Your task to perform on an android device: Open Google Maps Image 0: 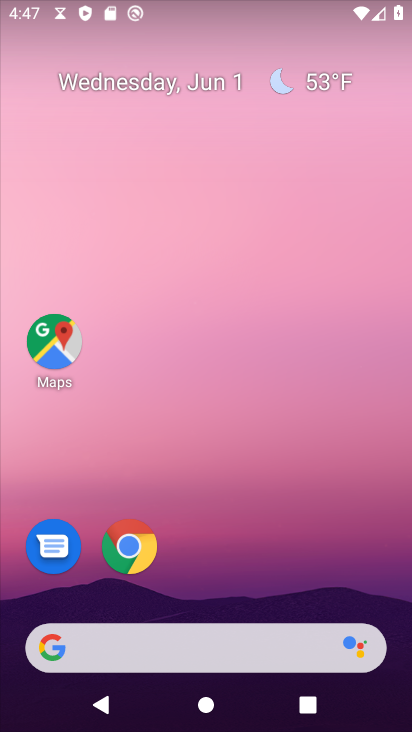
Step 0: drag from (267, 395) to (198, 27)
Your task to perform on an android device: Open Google Maps Image 1: 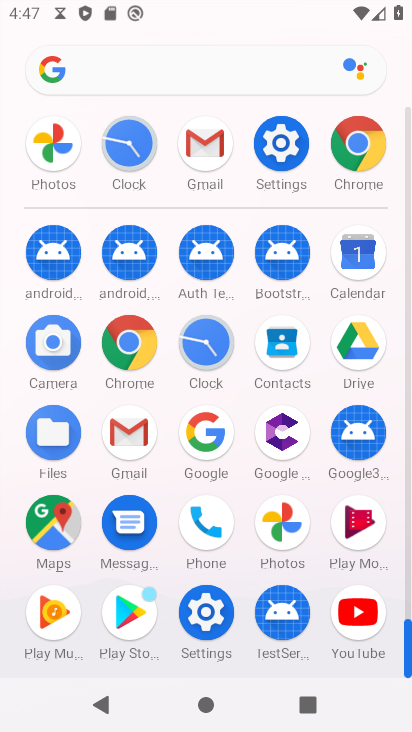
Step 1: drag from (8, 533) to (11, 214)
Your task to perform on an android device: Open Google Maps Image 2: 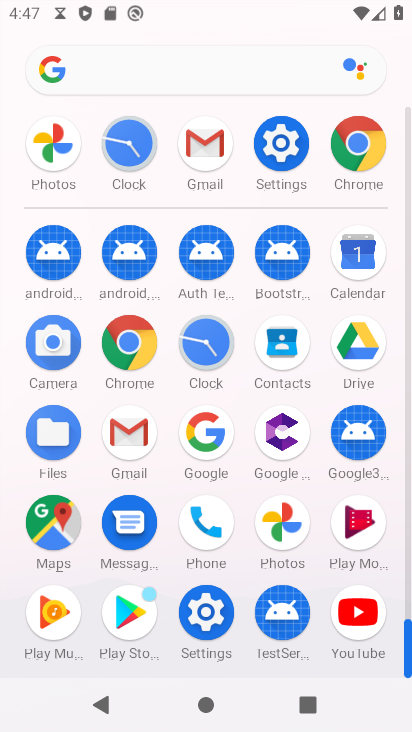
Step 2: click (48, 522)
Your task to perform on an android device: Open Google Maps Image 3: 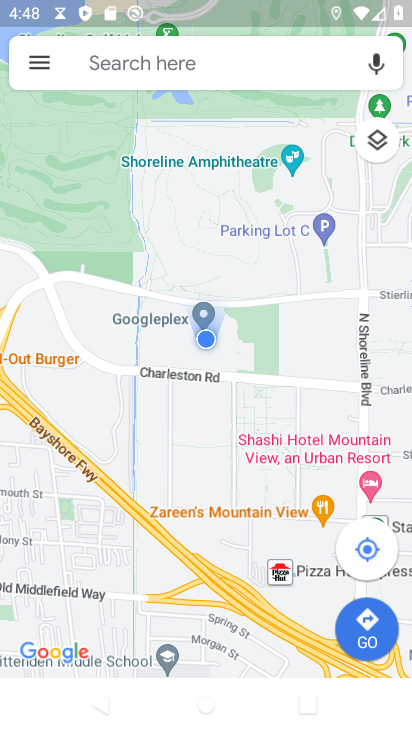
Step 3: task complete